Your task to perform on an android device: Go to notification settings Image 0: 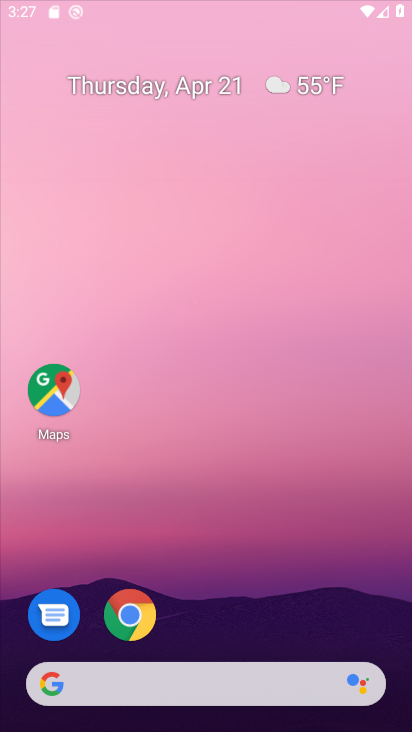
Step 0: click (158, 35)
Your task to perform on an android device: Go to notification settings Image 1: 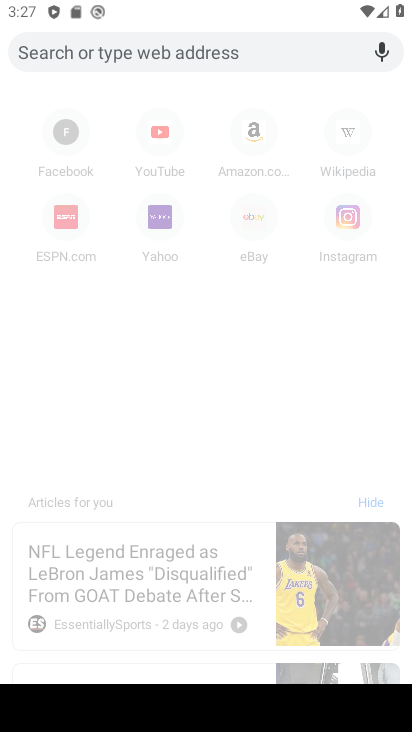
Step 1: press back button
Your task to perform on an android device: Go to notification settings Image 2: 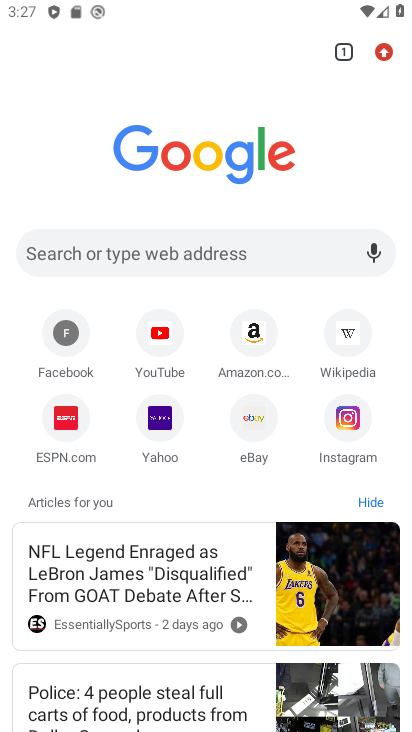
Step 2: press back button
Your task to perform on an android device: Go to notification settings Image 3: 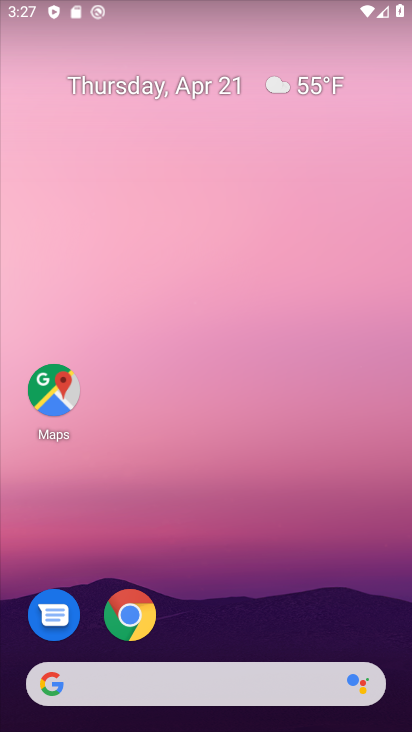
Step 3: drag from (280, 562) to (153, 0)
Your task to perform on an android device: Go to notification settings Image 4: 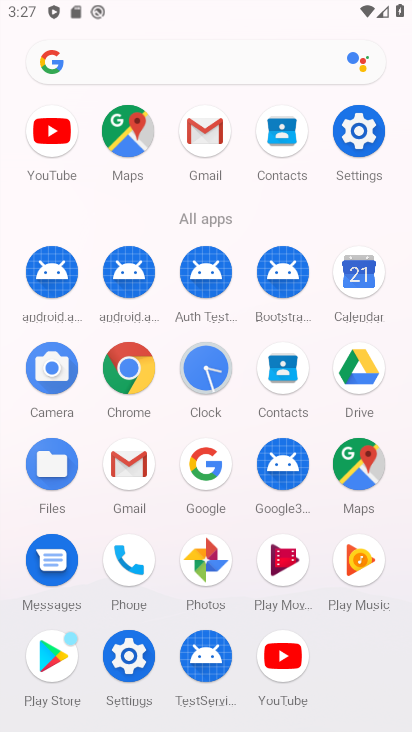
Step 4: drag from (0, 535) to (3, 223)
Your task to perform on an android device: Go to notification settings Image 5: 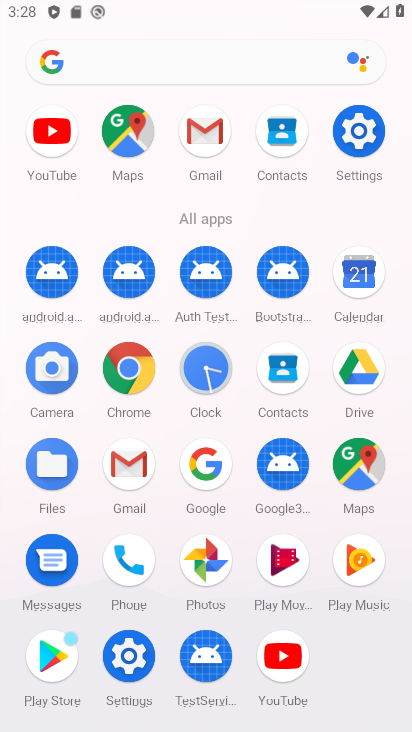
Step 5: click (361, 129)
Your task to perform on an android device: Go to notification settings Image 6: 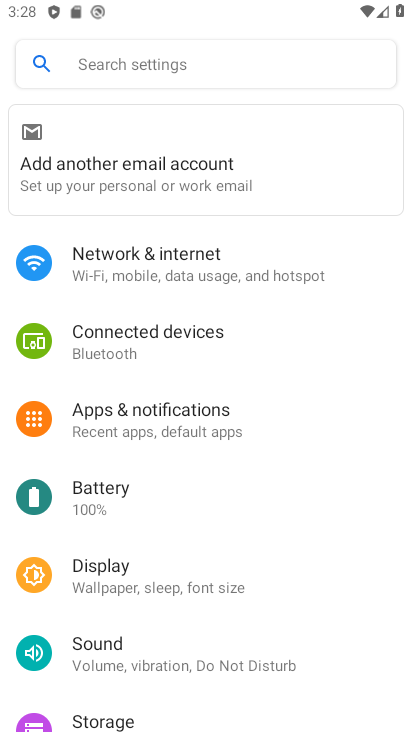
Step 6: click (160, 421)
Your task to perform on an android device: Go to notification settings Image 7: 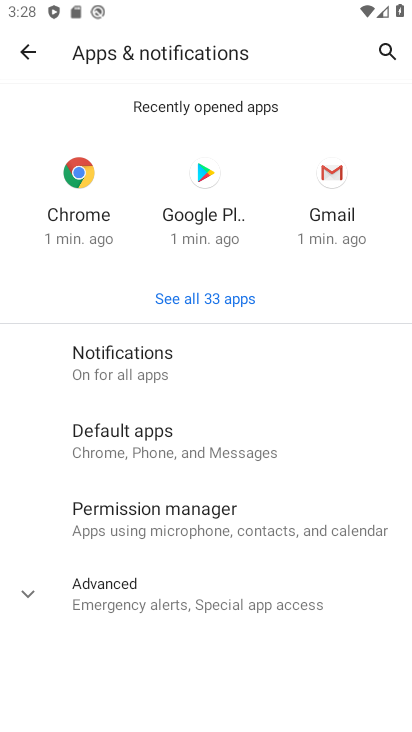
Step 7: drag from (195, 536) to (231, 150)
Your task to perform on an android device: Go to notification settings Image 8: 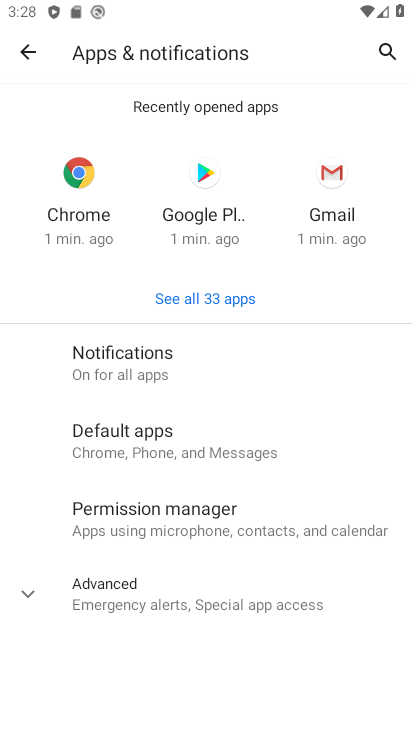
Step 8: click (33, 577)
Your task to perform on an android device: Go to notification settings Image 9: 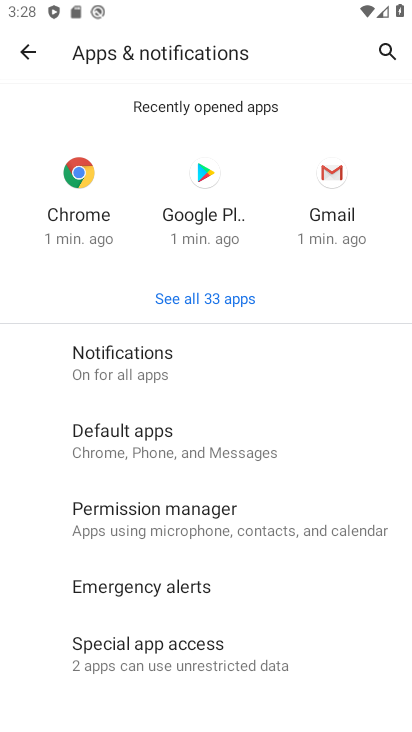
Step 9: task complete